Your task to perform on an android device: Open internet settings Image 0: 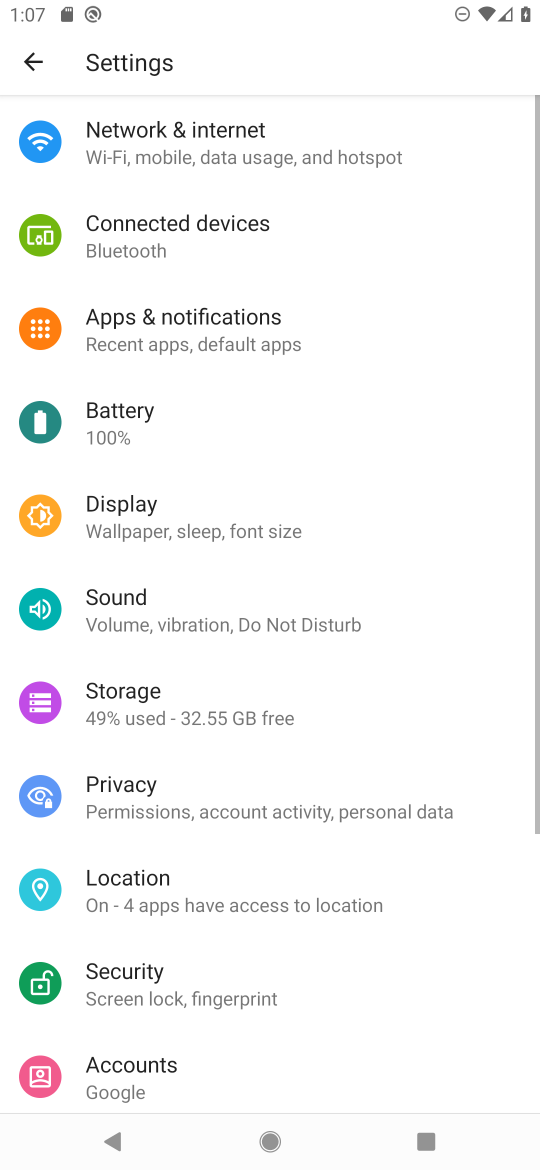
Step 0: press home button
Your task to perform on an android device: Open internet settings Image 1: 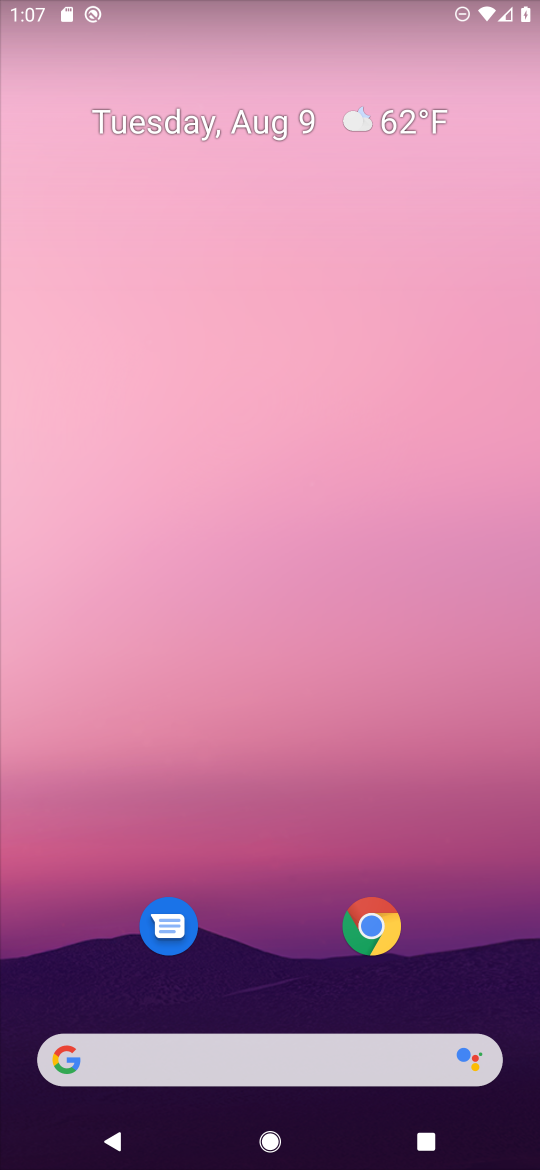
Step 1: drag from (193, 1155) to (540, 278)
Your task to perform on an android device: Open internet settings Image 2: 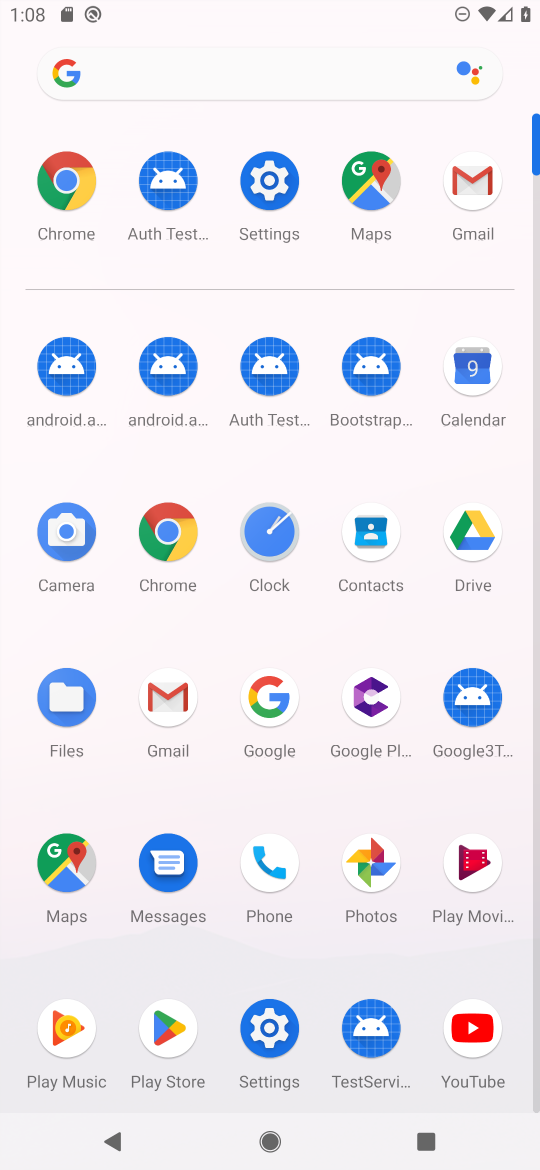
Step 2: click (266, 188)
Your task to perform on an android device: Open internet settings Image 3: 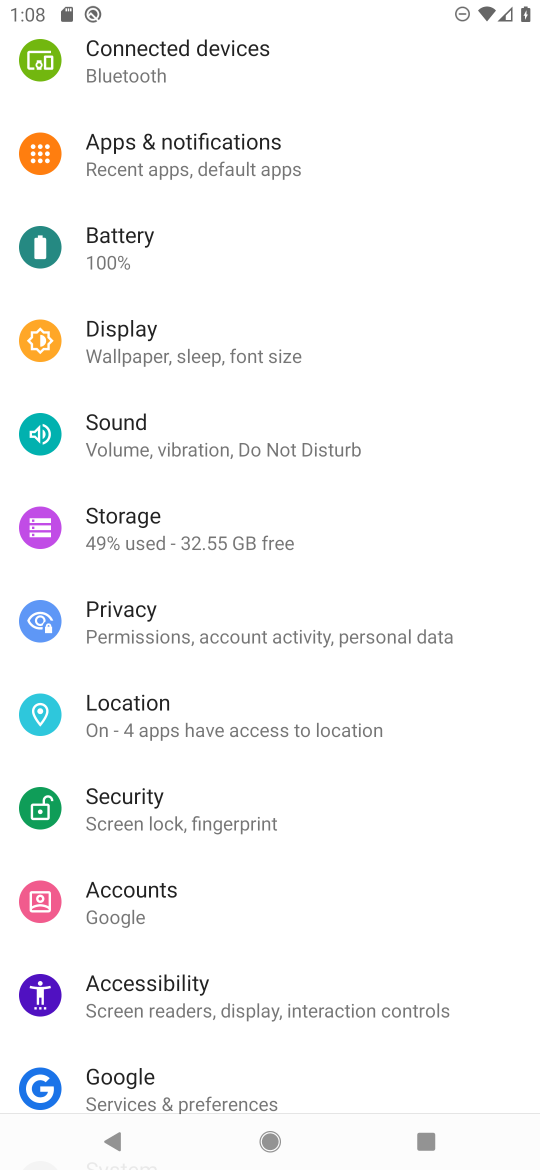
Step 3: drag from (132, 106) to (1, 599)
Your task to perform on an android device: Open internet settings Image 4: 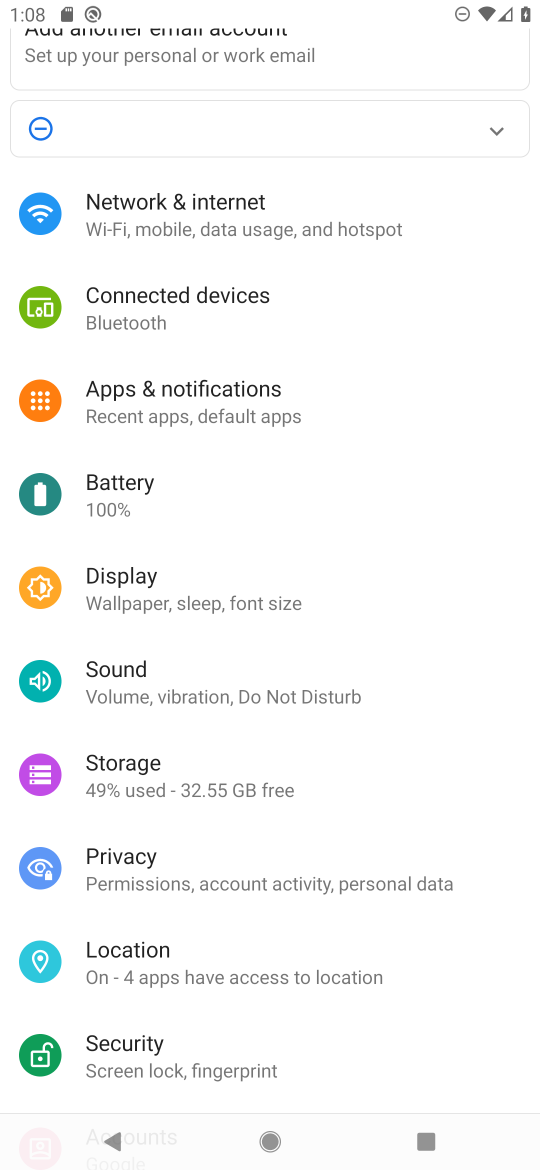
Step 4: click (153, 207)
Your task to perform on an android device: Open internet settings Image 5: 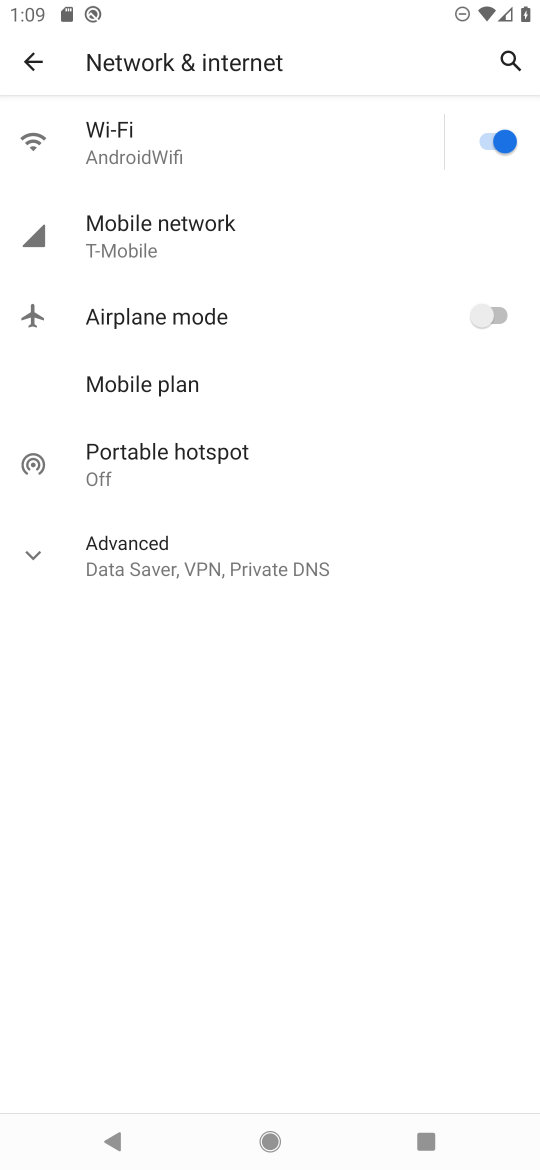
Step 5: task complete